Your task to perform on an android device: move an email to a new category in the gmail app Image 0: 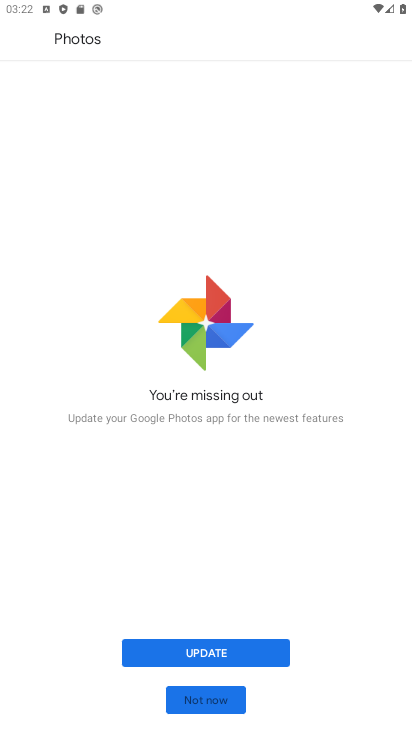
Step 0: press home button
Your task to perform on an android device: move an email to a new category in the gmail app Image 1: 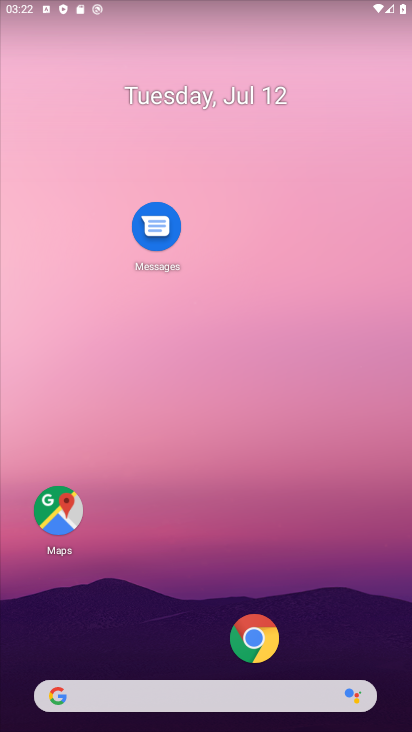
Step 1: drag from (187, 610) to (100, 335)
Your task to perform on an android device: move an email to a new category in the gmail app Image 2: 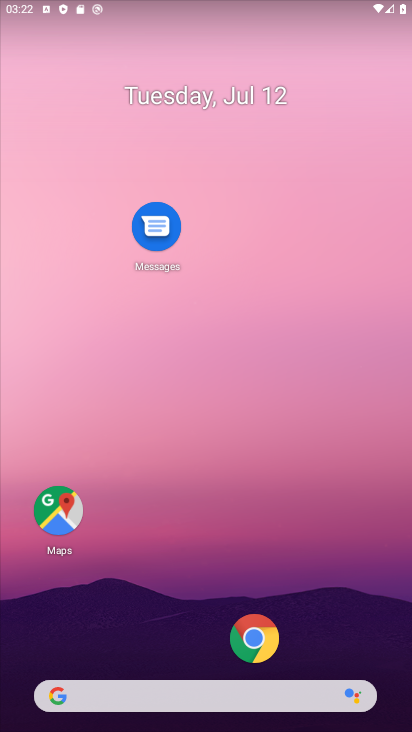
Step 2: drag from (222, 509) to (206, 56)
Your task to perform on an android device: move an email to a new category in the gmail app Image 3: 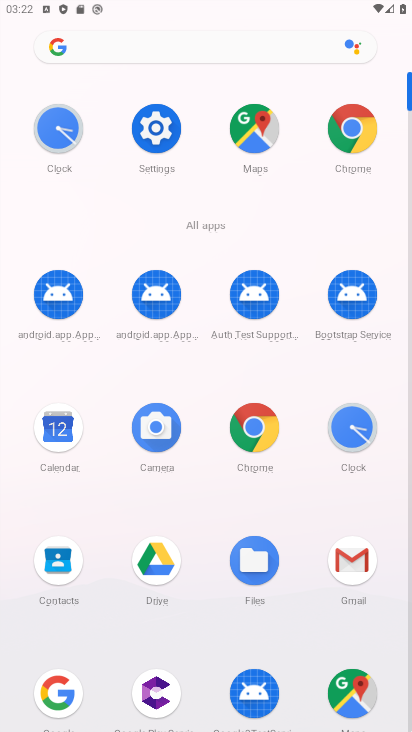
Step 3: click (364, 553)
Your task to perform on an android device: move an email to a new category in the gmail app Image 4: 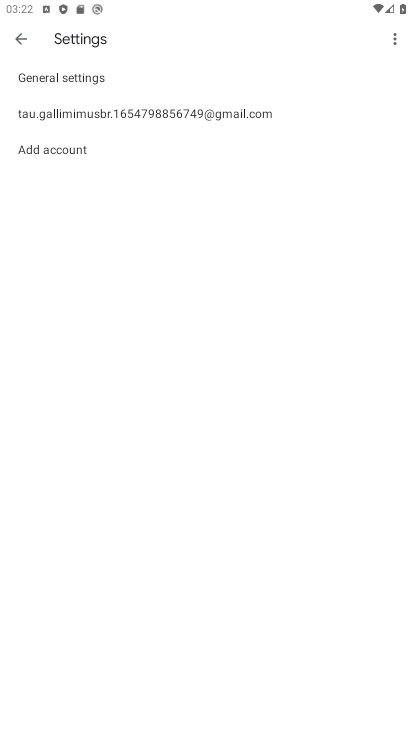
Step 4: click (35, 32)
Your task to perform on an android device: move an email to a new category in the gmail app Image 5: 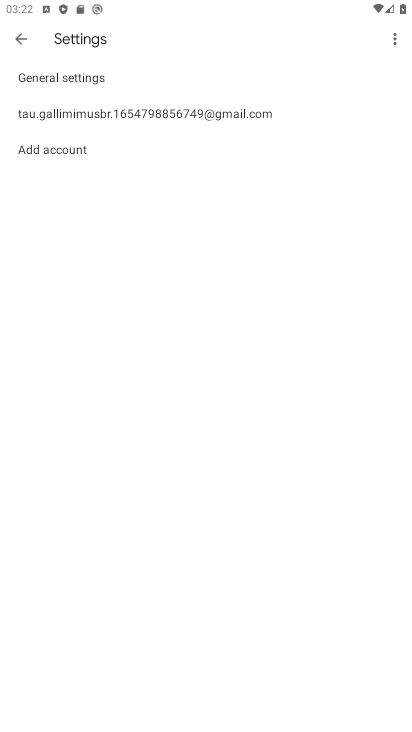
Step 5: click (21, 34)
Your task to perform on an android device: move an email to a new category in the gmail app Image 6: 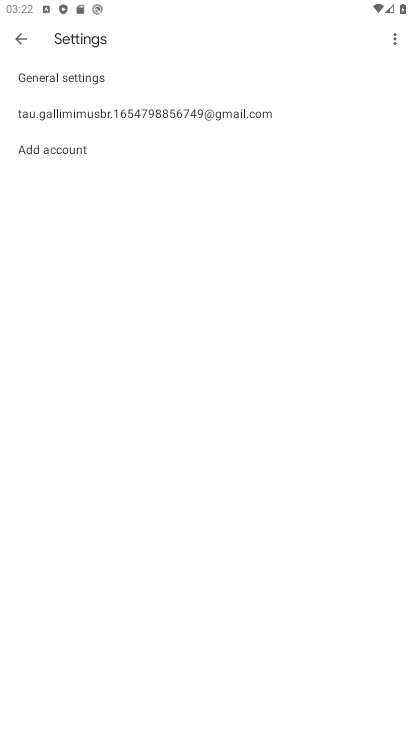
Step 6: click (21, 34)
Your task to perform on an android device: move an email to a new category in the gmail app Image 7: 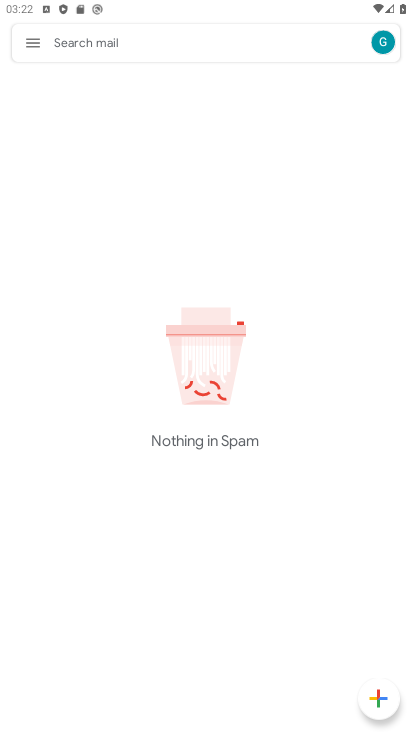
Step 7: click (32, 43)
Your task to perform on an android device: move an email to a new category in the gmail app Image 8: 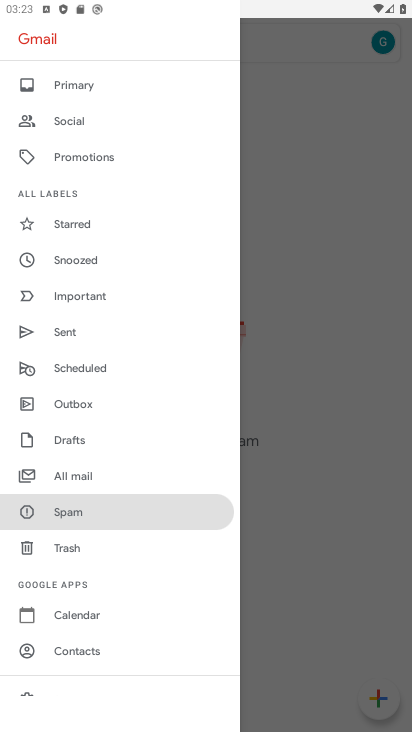
Step 8: drag from (105, 96) to (178, 622)
Your task to perform on an android device: move an email to a new category in the gmail app Image 9: 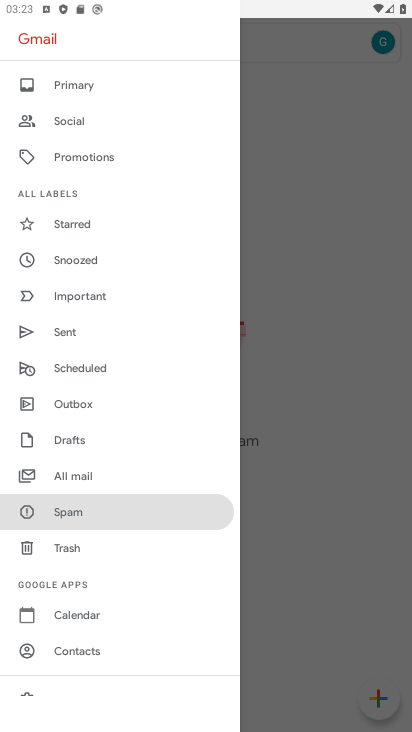
Step 9: click (103, 478)
Your task to perform on an android device: move an email to a new category in the gmail app Image 10: 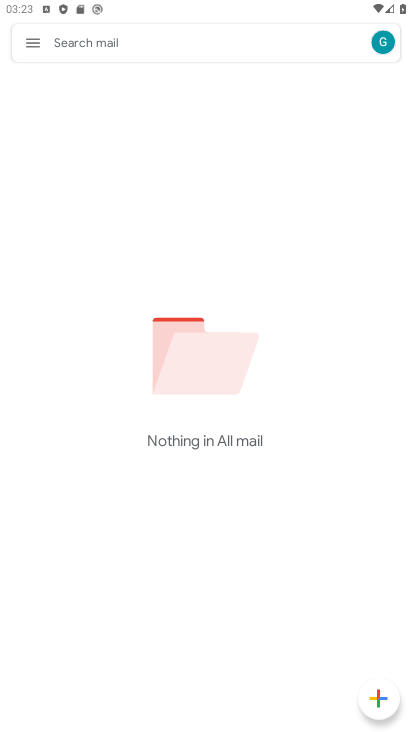
Step 10: task complete